Your task to perform on an android device: See recent photos Image 0: 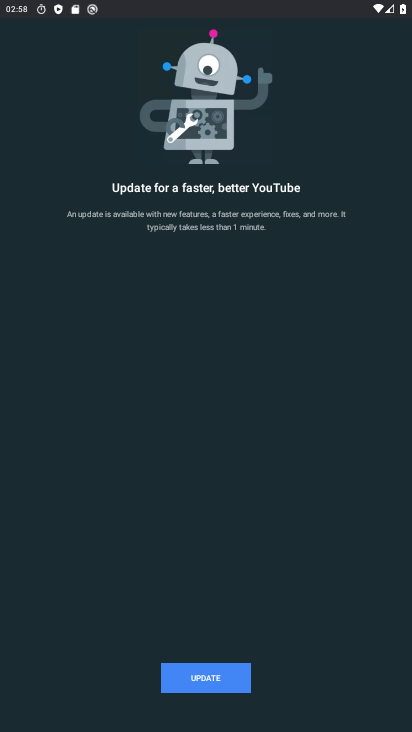
Step 0: press home button
Your task to perform on an android device: See recent photos Image 1: 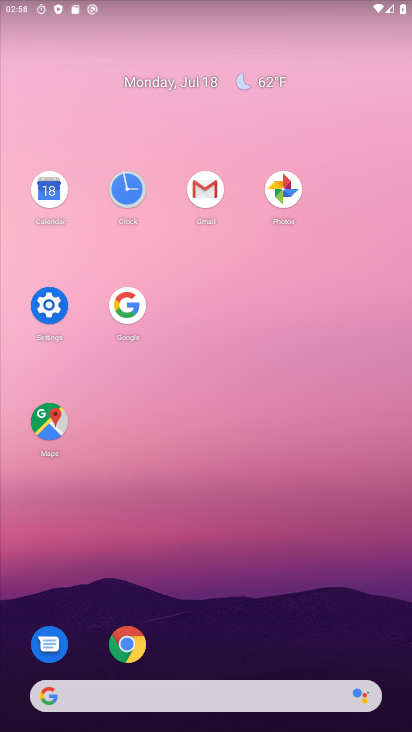
Step 1: click (275, 196)
Your task to perform on an android device: See recent photos Image 2: 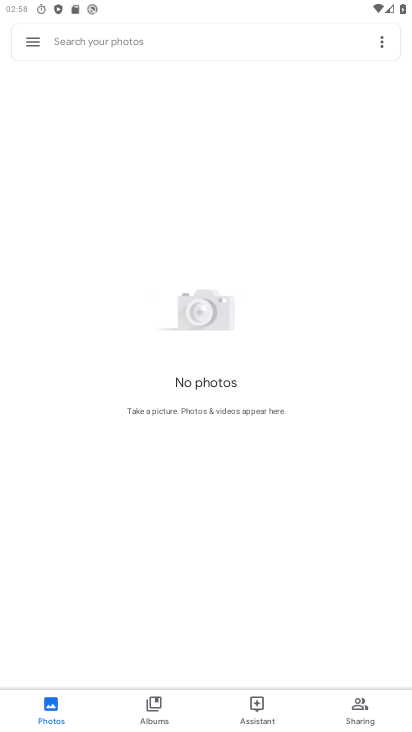
Step 2: task complete